Your task to perform on an android device: Clear the shopping cart on bestbuy.com. Search for "logitech g933" on bestbuy.com, select the first entry, and add it to the cart. Image 0: 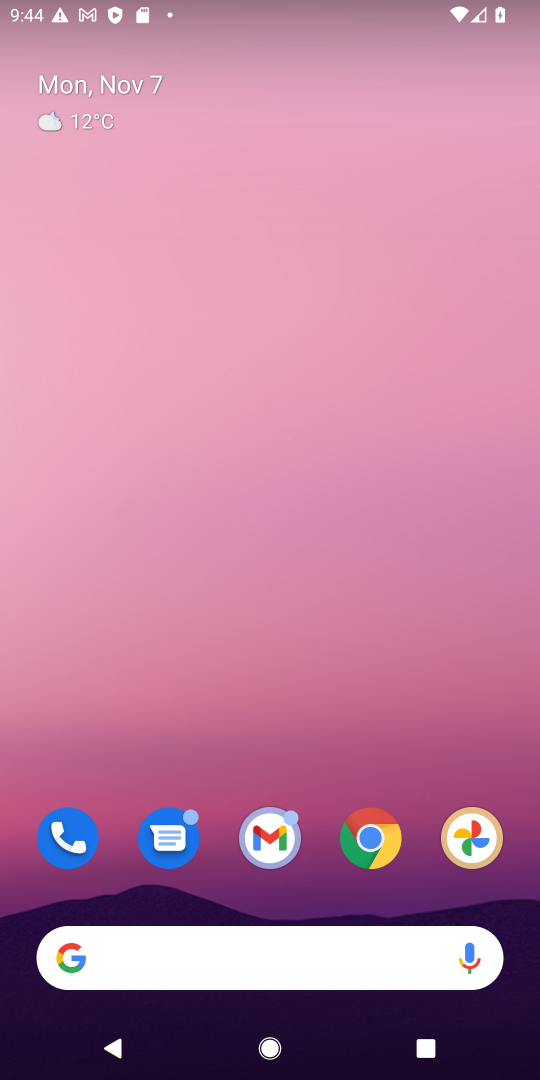
Step 0: click (376, 842)
Your task to perform on an android device: Clear the shopping cart on bestbuy.com. Search for "logitech g933" on bestbuy.com, select the first entry, and add it to the cart. Image 1: 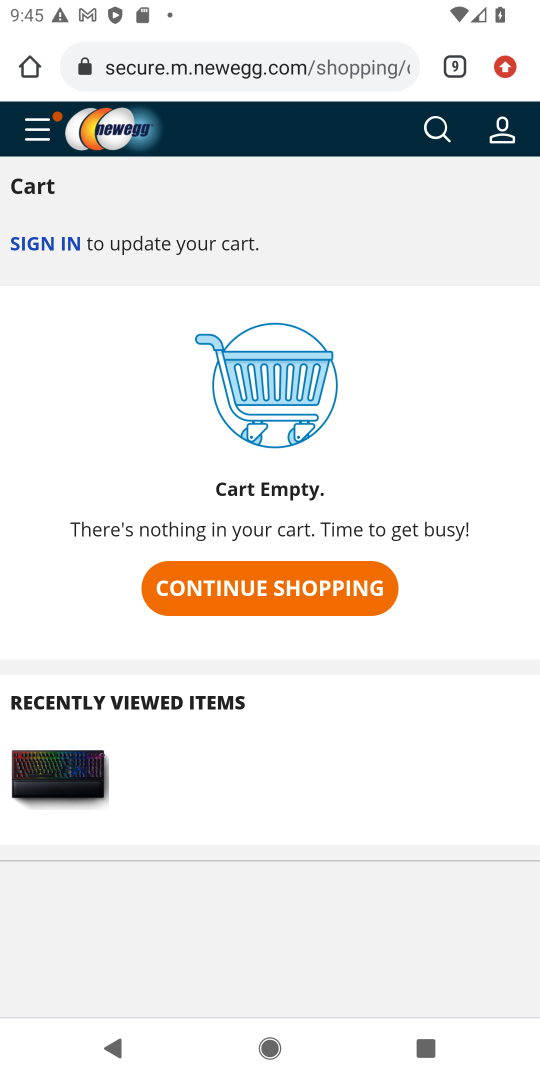
Step 1: click (450, 61)
Your task to perform on an android device: Clear the shopping cart on bestbuy.com. Search for "logitech g933" on bestbuy.com, select the first entry, and add it to the cart. Image 2: 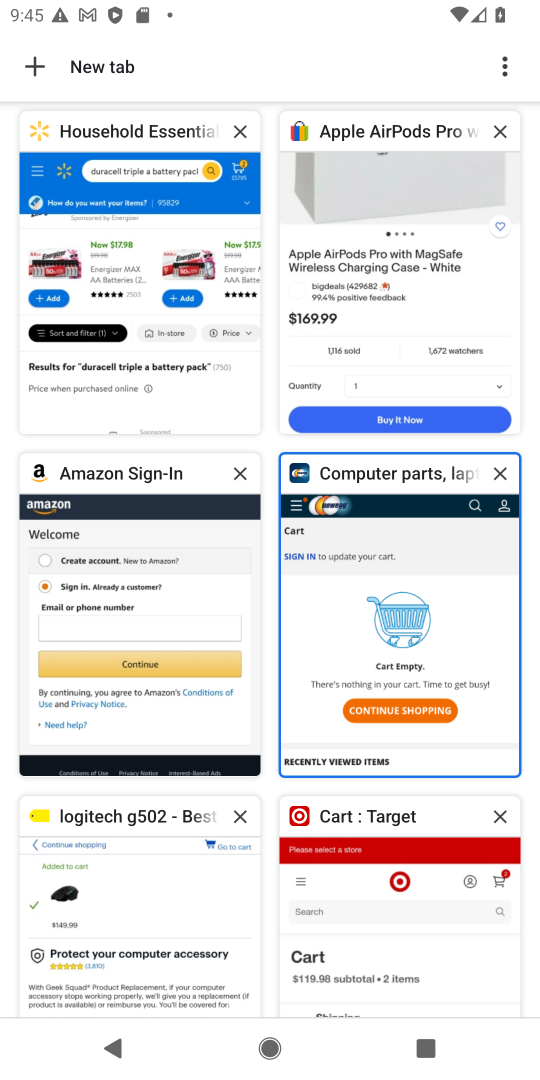
Step 2: click (161, 917)
Your task to perform on an android device: Clear the shopping cart on bestbuy.com. Search for "logitech g933" on bestbuy.com, select the first entry, and add it to the cart. Image 3: 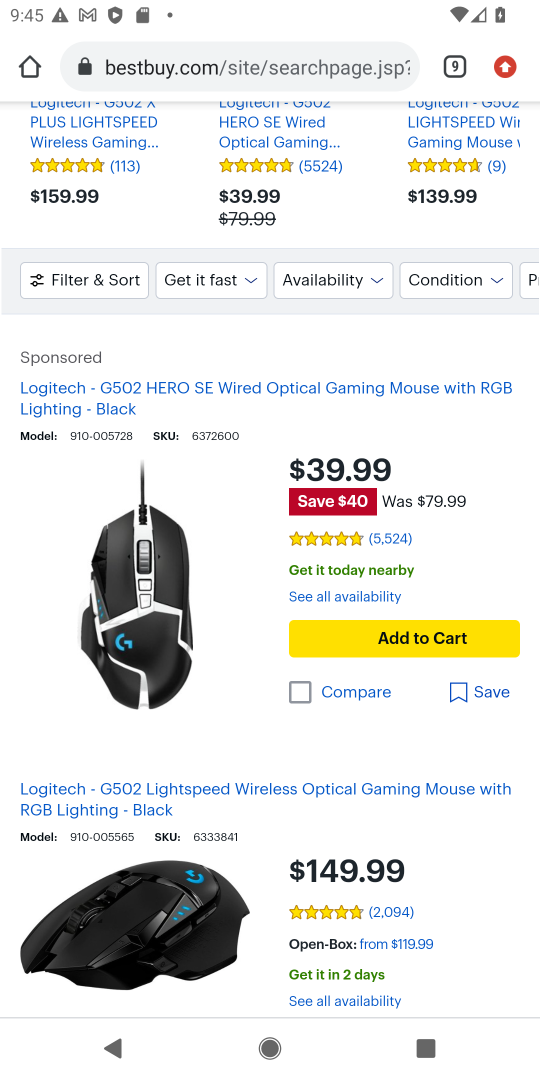
Step 3: drag from (199, 150) to (181, 910)
Your task to perform on an android device: Clear the shopping cart on bestbuy.com. Search for "logitech g933" on bestbuy.com, select the first entry, and add it to the cart. Image 4: 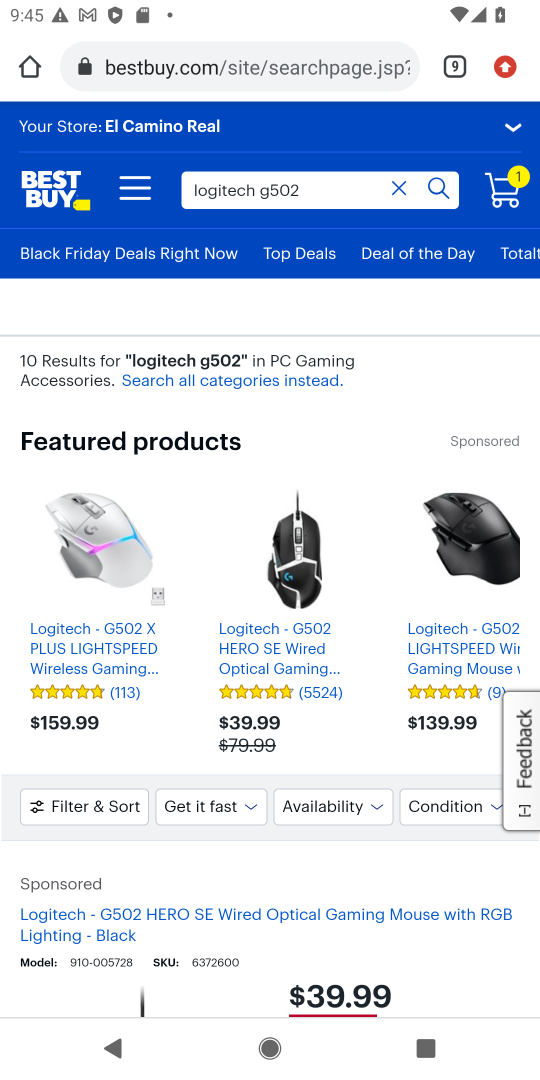
Step 4: click (400, 187)
Your task to perform on an android device: Clear the shopping cart on bestbuy.com. Search for "logitech g933" on bestbuy.com, select the first entry, and add it to the cart. Image 5: 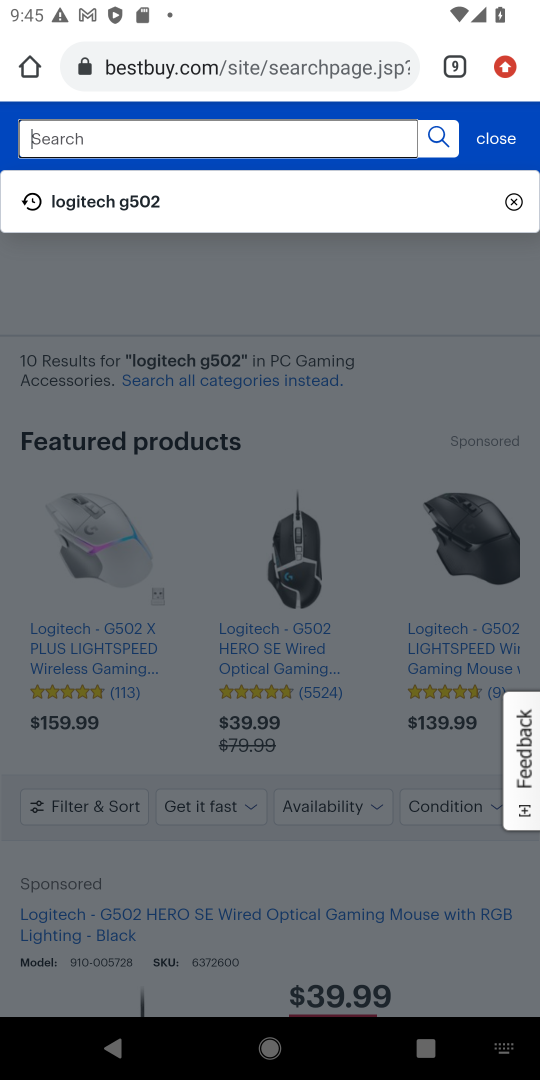
Step 5: type "logitech g933"
Your task to perform on an android device: Clear the shopping cart on bestbuy.com. Search for "logitech g933" on bestbuy.com, select the first entry, and add it to the cart. Image 6: 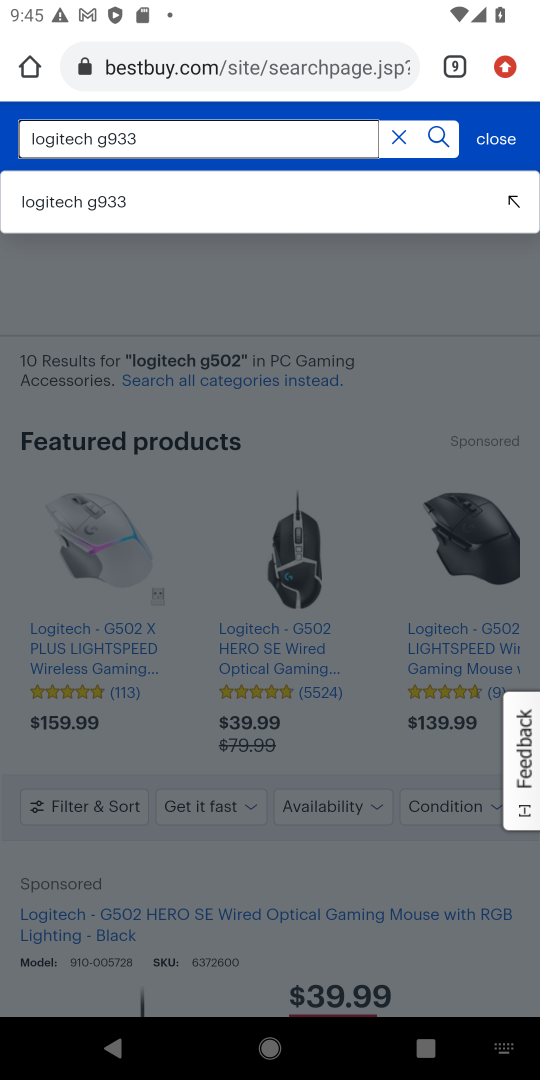
Step 6: click (368, 208)
Your task to perform on an android device: Clear the shopping cart on bestbuy.com. Search for "logitech g933" on bestbuy.com, select the first entry, and add it to the cart. Image 7: 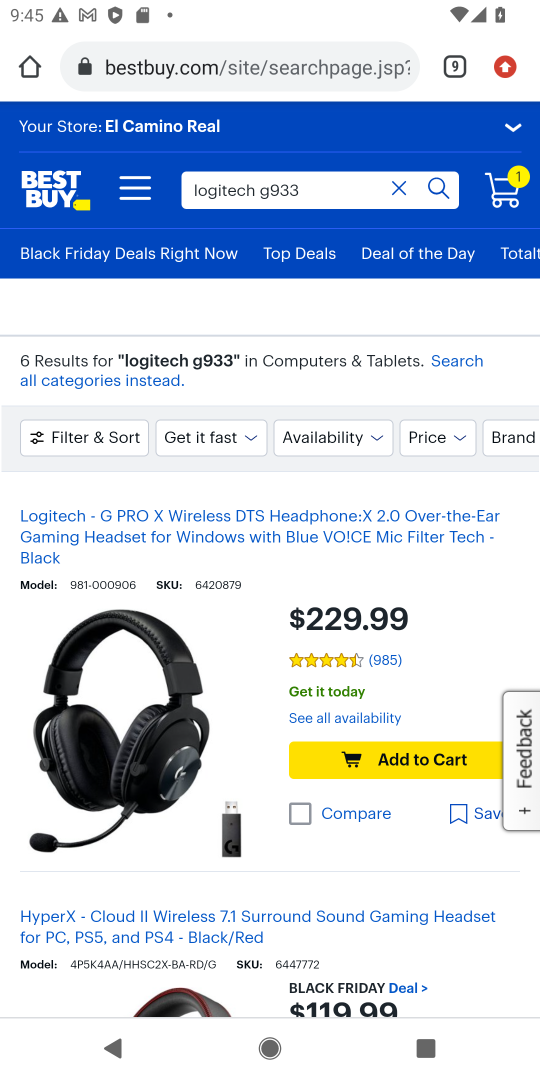
Step 7: click (423, 764)
Your task to perform on an android device: Clear the shopping cart on bestbuy.com. Search for "logitech g933" on bestbuy.com, select the first entry, and add it to the cart. Image 8: 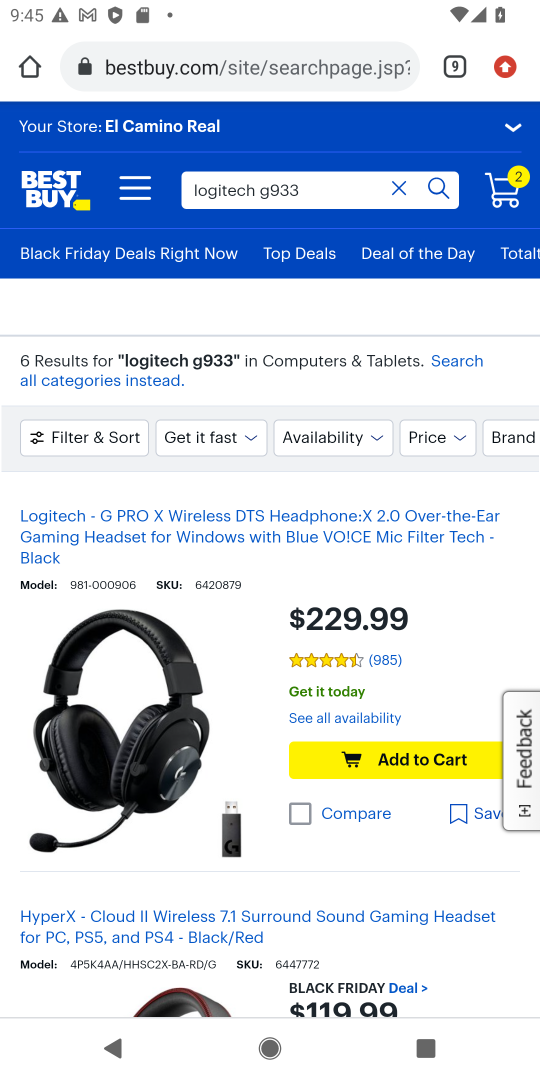
Step 8: task complete